Your task to perform on an android device: Open CNN.com Image 0: 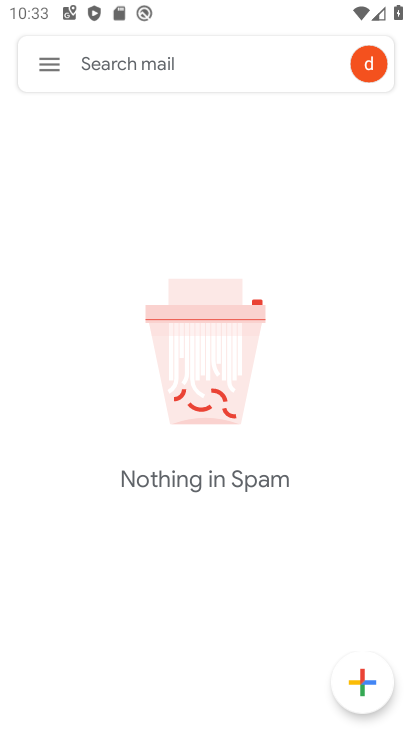
Step 0: press home button
Your task to perform on an android device: Open CNN.com Image 1: 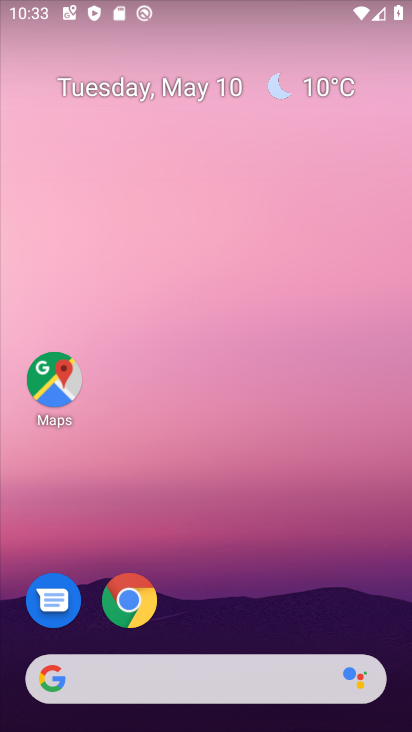
Step 1: click (170, 679)
Your task to perform on an android device: Open CNN.com Image 2: 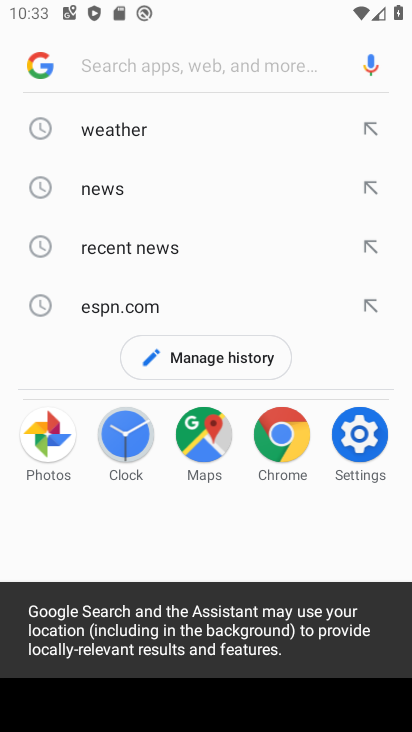
Step 2: click (156, 58)
Your task to perform on an android device: Open CNN.com Image 3: 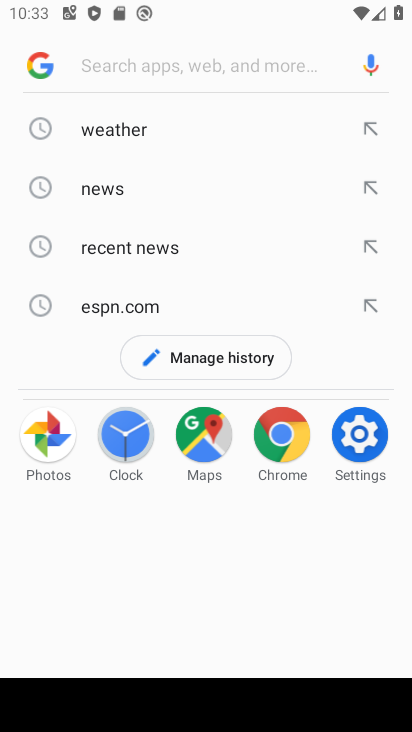
Step 3: type "CNN.com"
Your task to perform on an android device: Open CNN.com Image 4: 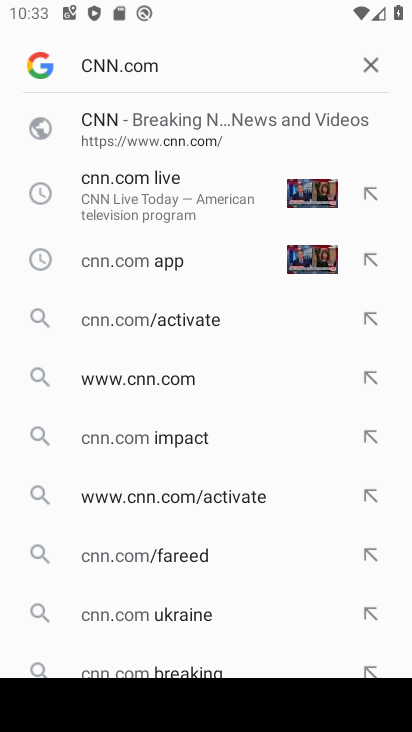
Step 4: click (111, 118)
Your task to perform on an android device: Open CNN.com Image 5: 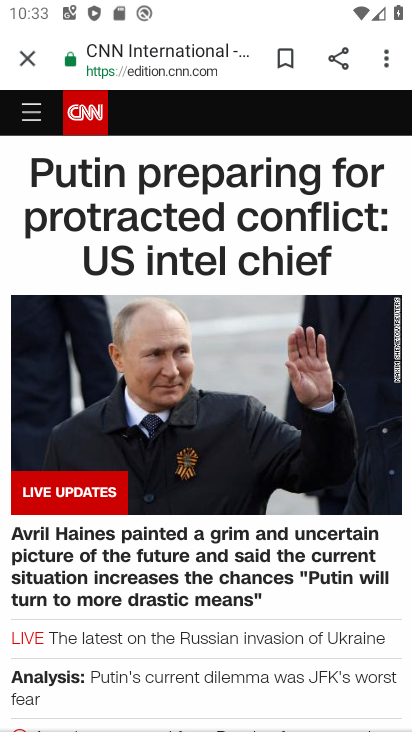
Step 5: task complete